Your task to perform on an android device: set default search engine in the chrome app Image 0: 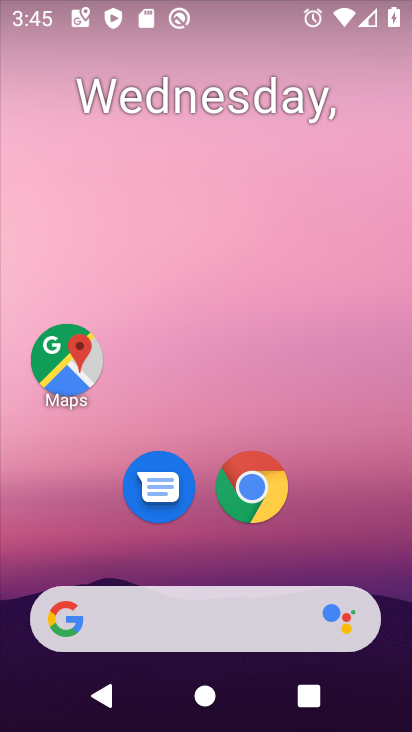
Step 0: drag from (377, 538) to (372, 121)
Your task to perform on an android device: set default search engine in the chrome app Image 1: 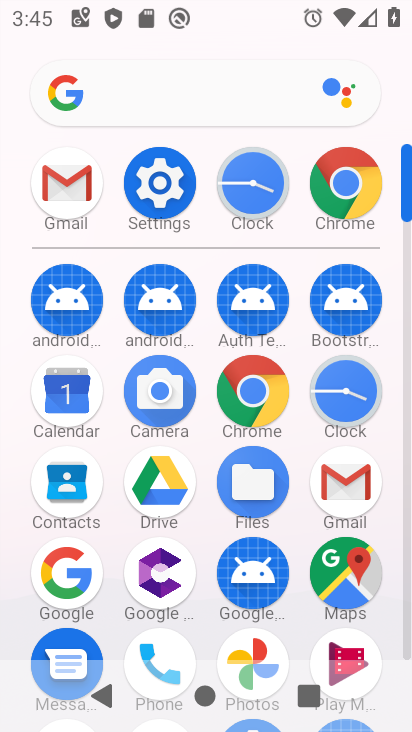
Step 1: click (254, 408)
Your task to perform on an android device: set default search engine in the chrome app Image 2: 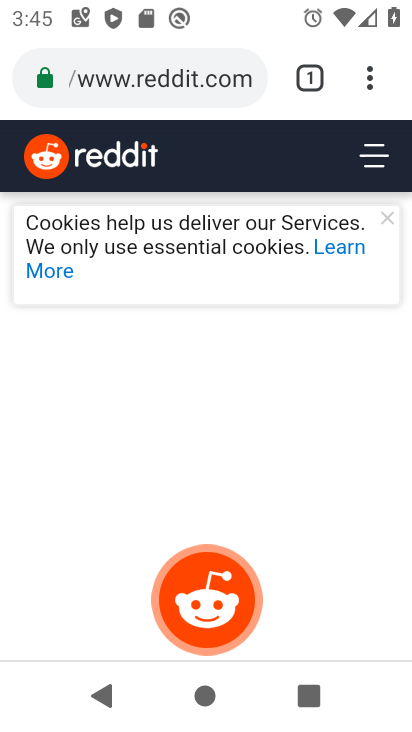
Step 2: click (368, 88)
Your task to perform on an android device: set default search engine in the chrome app Image 3: 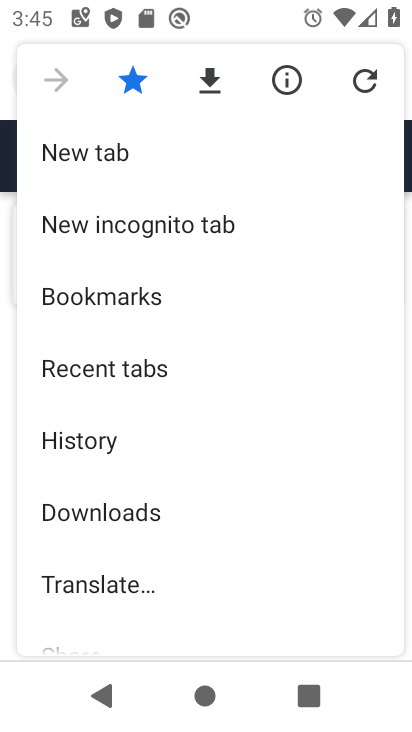
Step 3: drag from (311, 443) to (323, 330)
Your task to perform on an android device: set default search engine in the chrome app Image 4: 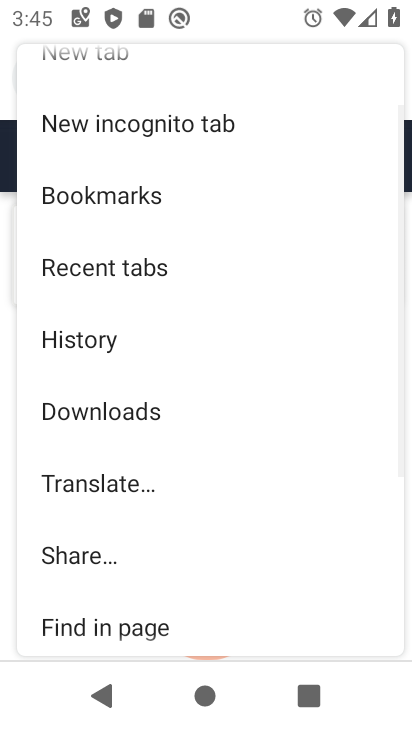
Step 4: drag from (311, 486) to (312, 340)
Your task to perform on an android device: set default search engine in the chrome app Image 5: 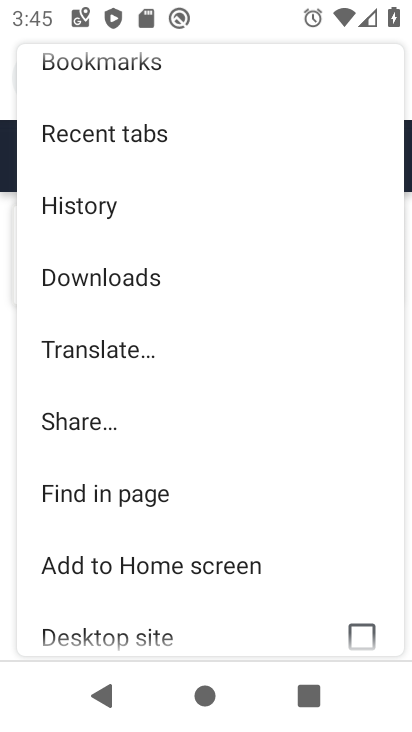
Step 5: drag from (288, 522) to (297, 368)
Your task to perform on an android device: set default search engine in the chrome app Image 6: 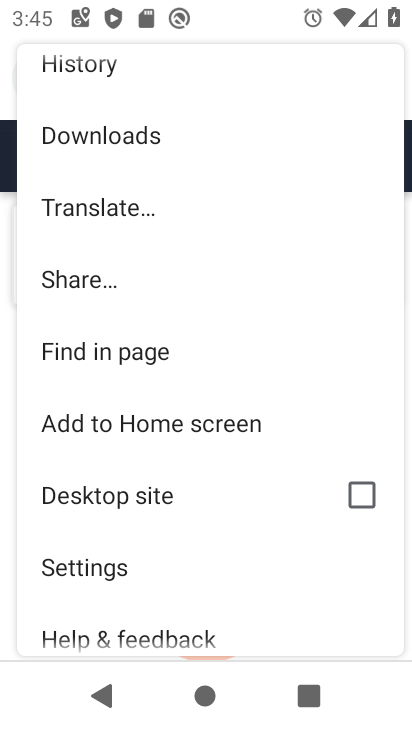
Step 6: click (124, 584)
Your task to perform on an android device: set default search engine in the chrome app Image 7: 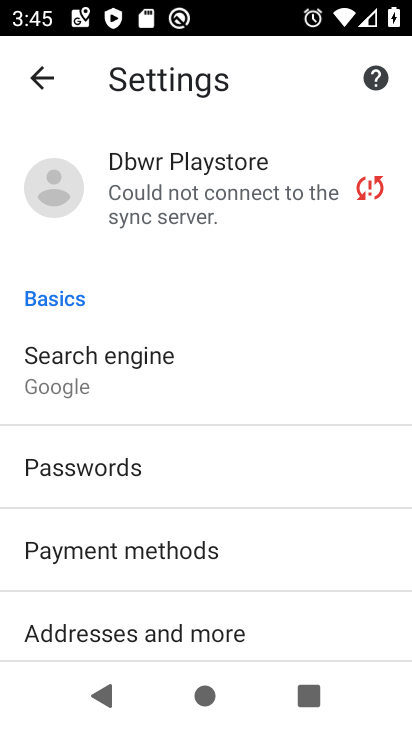
Step 7: drag from (342, 532) to (336, 408)
Your task to perform on an android device: set default search engine in the chrome app Image 8: 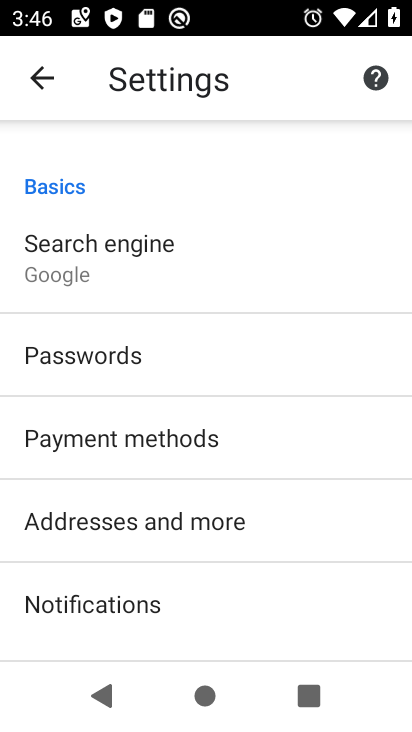
Step 8: click (182, 276)
Your task to perform on an android device: set default search engine in the chrome app Image 9: 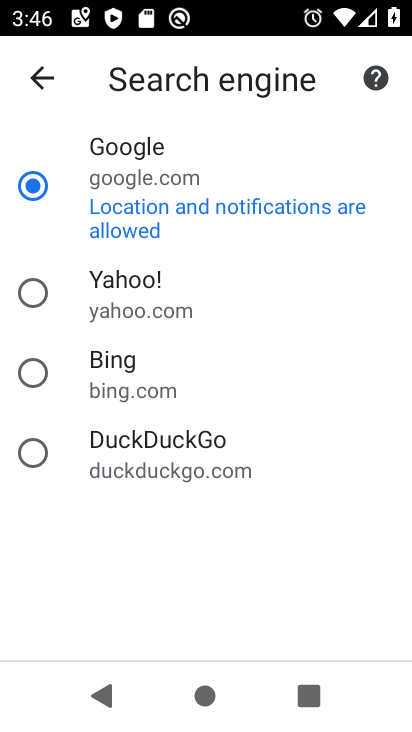
Step 9: click (125, 382)
Your task to perform on an android device: set default search engine in the chrome app Image 10: 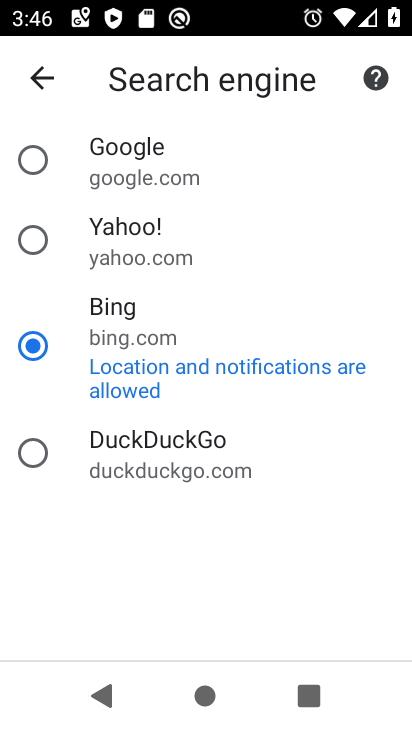
Step 10: task complete